Your task to perform on an android device: Search for sushi restaurants on Maps Image 0: 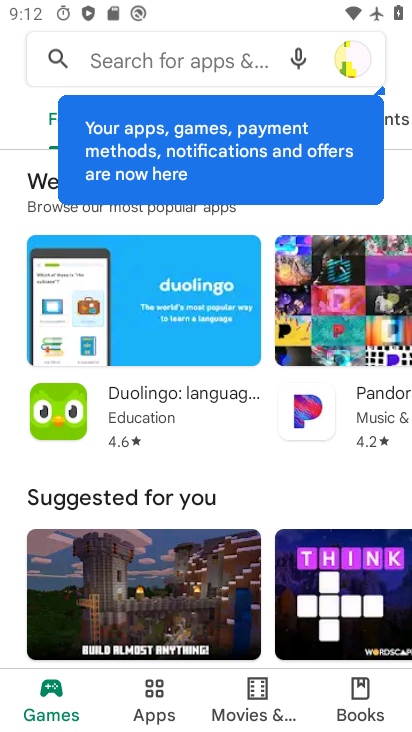
Step 0: press home button
Your task to perform on an android device: Search for sushi restaurants on Maps Image 1: 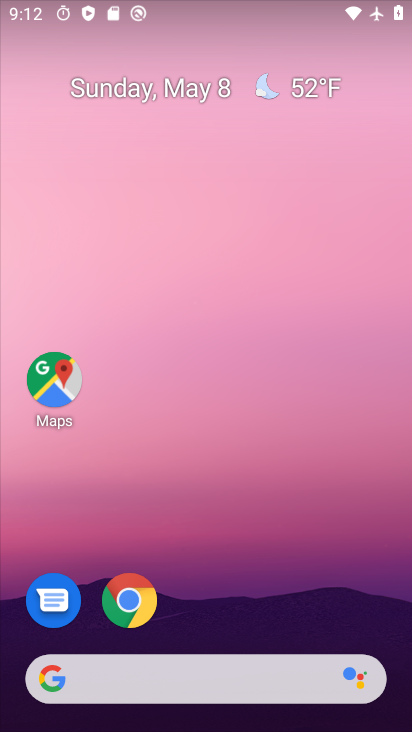
Step 1: click (33, 376)
Your task to perform on an android device: Search for sushi restaurants on Maps Image 2: 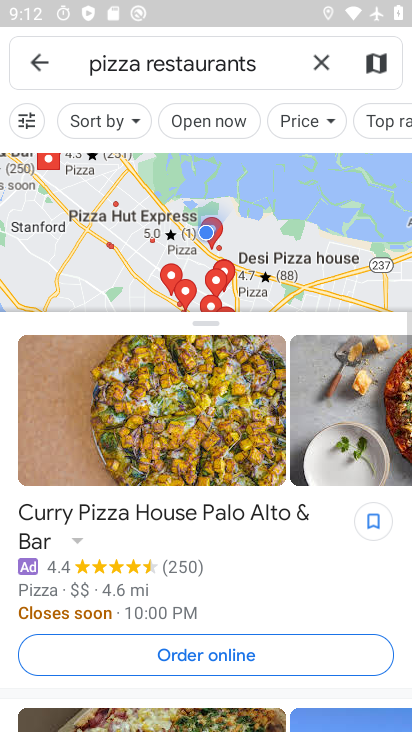
Step 2: click (327, 65)
Your task to perform on an android device: Search for sushi restaurants on Maps Image 3: 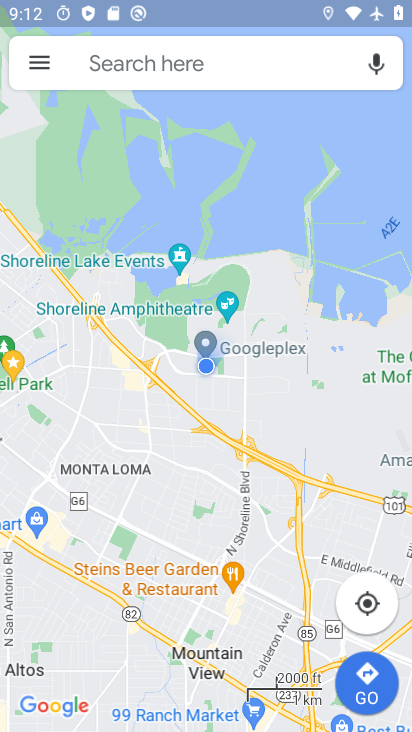
Step 3: click (232, 68)
Your task to perform on an android device: Search for sushi restaurants on Maps Image 4: 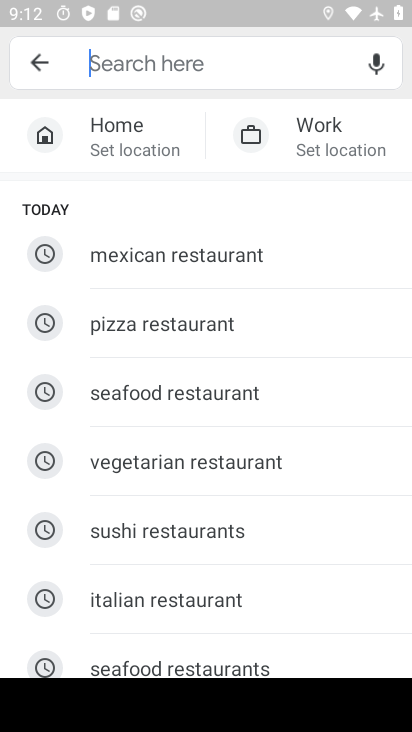
Step 4: click (203, 534)
Your task to perform on an android device: Search for sushi restaurants on Maps Image 5: 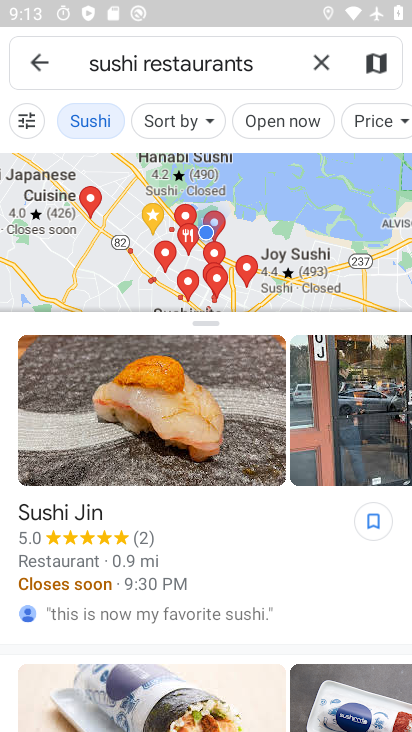
Step 5: task complete